Your task to perform on an android device: manage bookmarks in the chrome app Image 0: 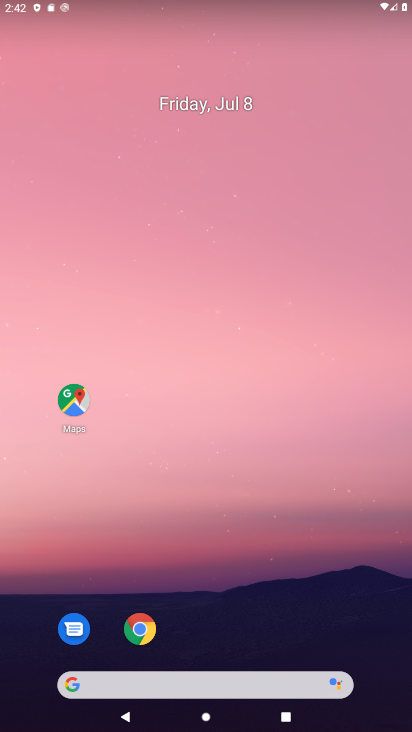
Step 0: click (144, 617)
Your task to perform on an android device: manage bookmarks in the chrome app Image 1: 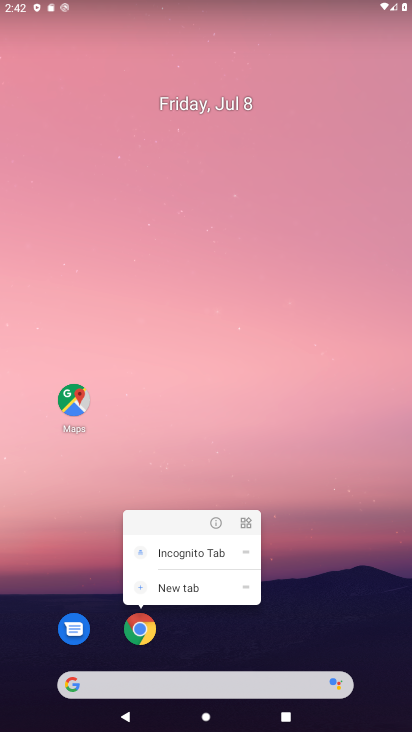
Step 1: click (136, 625)
Your task to perform on an android device: manage bookmarks in the chrome app Image 2: 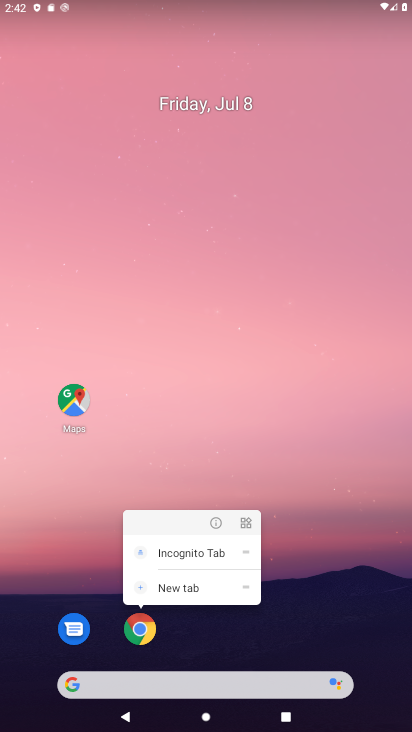
Step 2: click (145, 626)
Your task to perform on an android device: manage bookmarks in the chrome app Image 3: 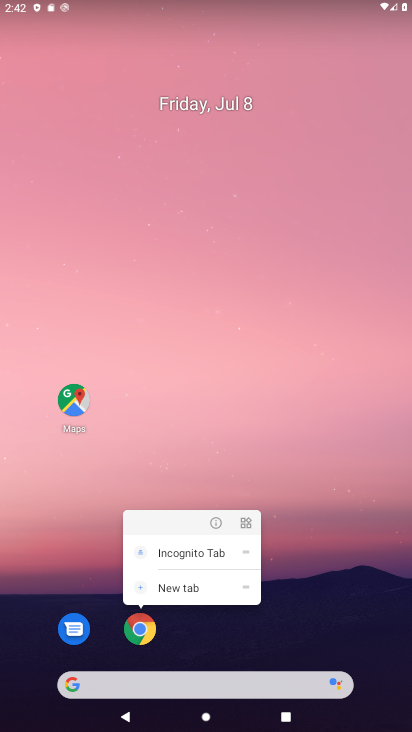
Step 3: task complete